Your task to perform on an android device: turn off wifi Image 0: 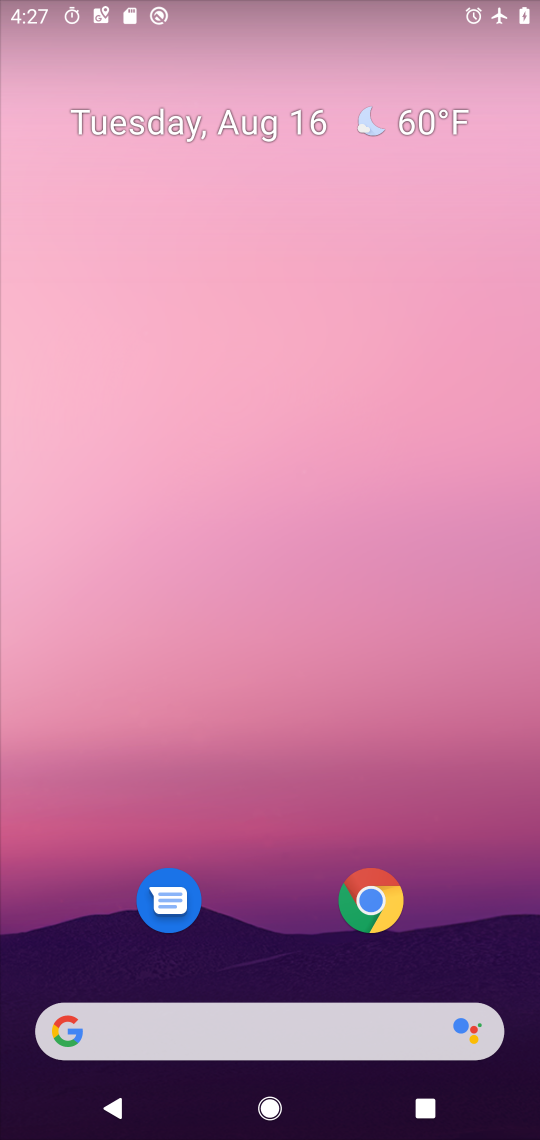
Step 0: drag from (278, 985) to (231, 125)
Your task to perform on an android device: turn off wifi Image 1: 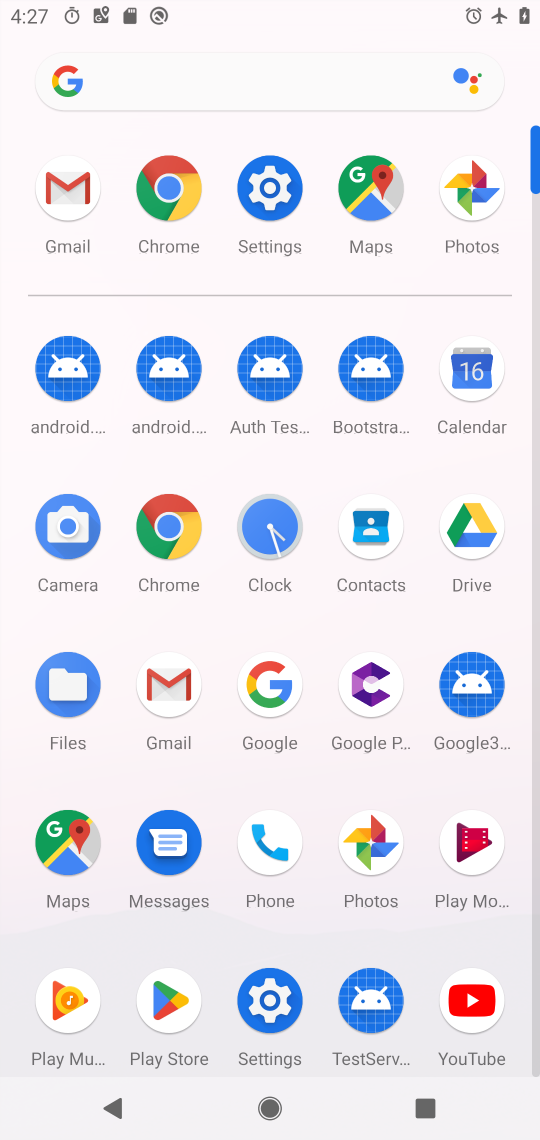
Step 1: click (272, 177)
Your task to perform on an android device: turn off wifi Image 2: 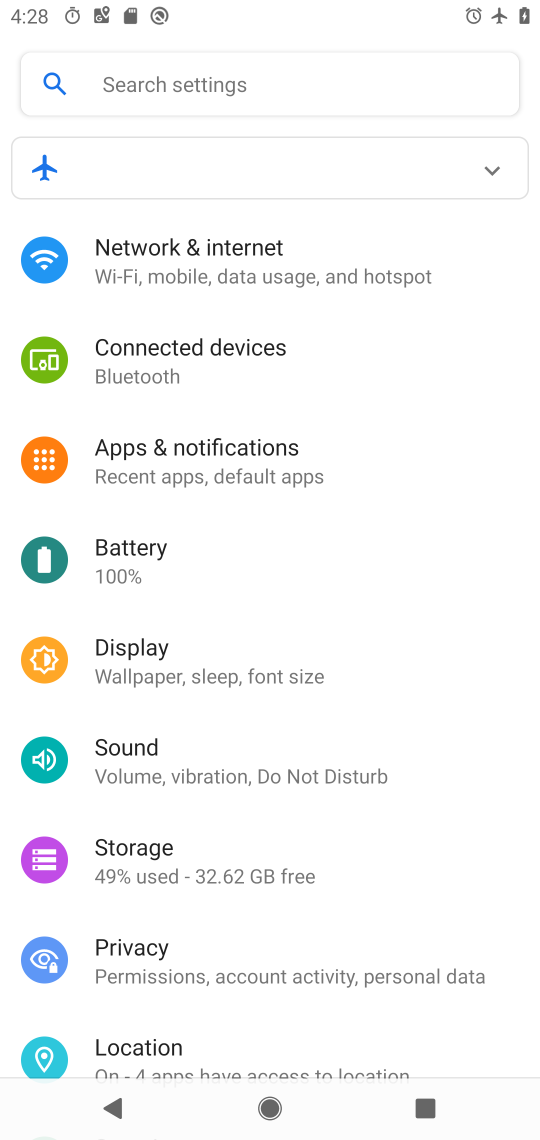
Step 2: click (210, 262)
Your task to perform on an android device: turn off wifi Image 3: 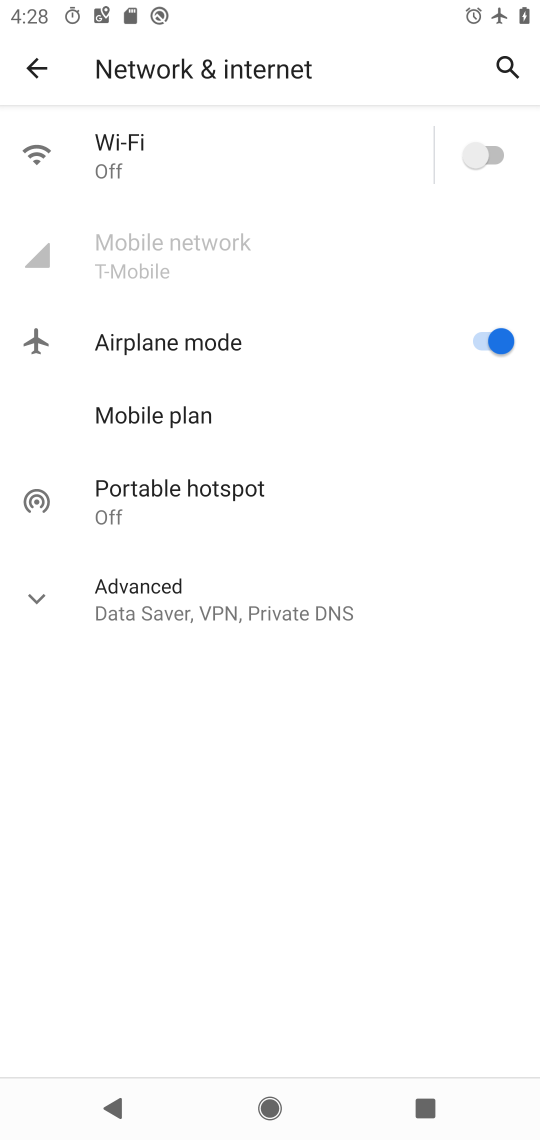
Step 3: task complete